Your task to perform on an android device: Open Google Image 0: 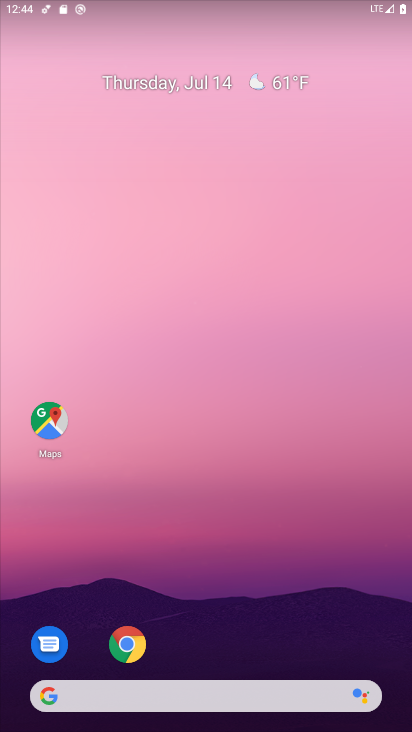
Step 0: drag from (255, 575) to (249, 139)
Your task to perform on an android device: Open Google Image 1: 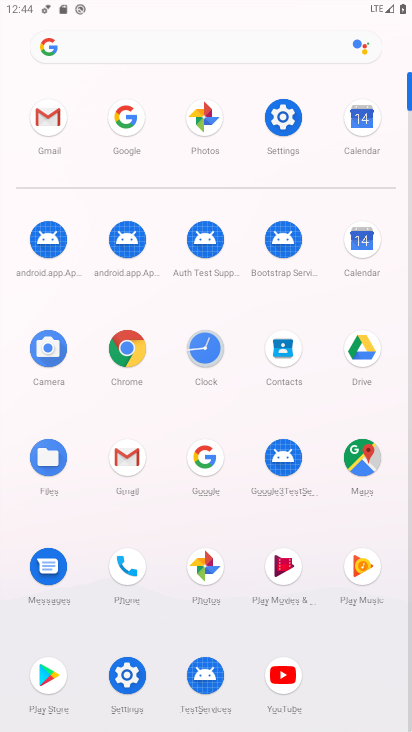
Step 1: click (204, 461)
Your task to perform on an android device: Open Google Image 2: 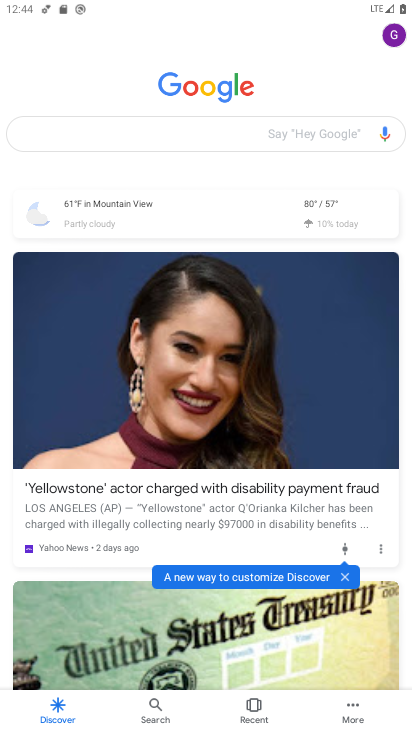
Step 2: task complete